Your task to perform on an android device: check data usage Image 0: 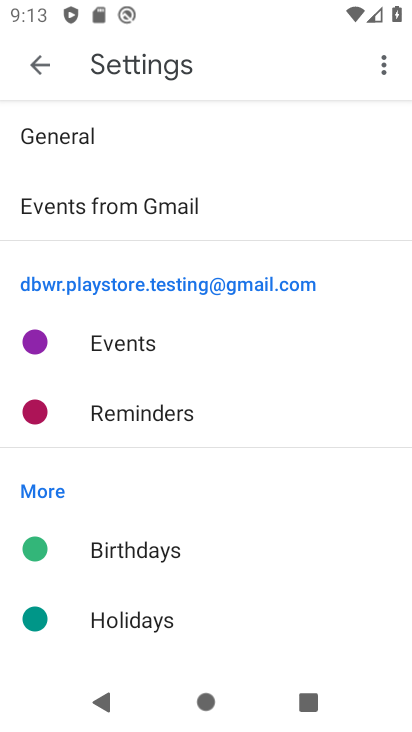
Step 0: press home button
Your task to perform on an android device: check data usage Image 1: 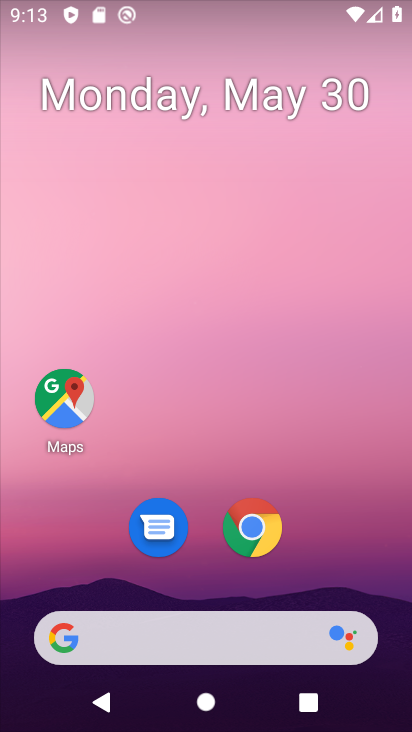
Step 1: drag from (81, 611) to (269, 76)
Your task to perform on an android device: check data usage Image 2: 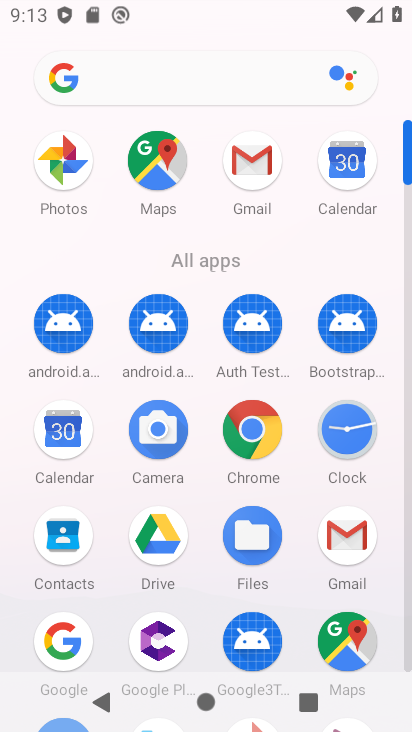
Step 2: drag from (172, 640) to (227, 410)
Your task to perform on an android device: check data usage Image 3: 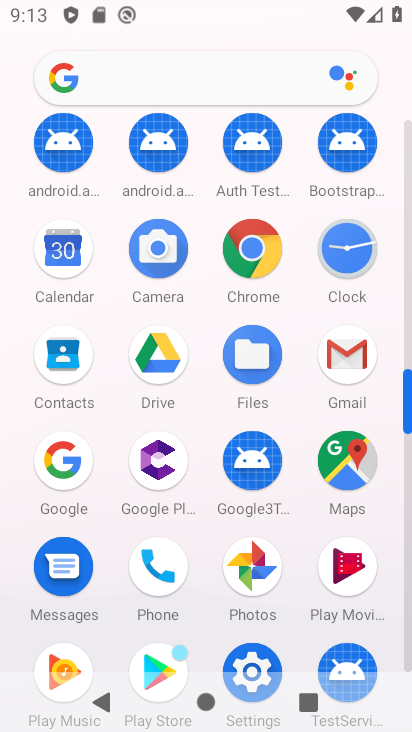
Step 3: drag from (248, 610) to (288, 432)
Your task to perform on an android device: check data usage Image 4: 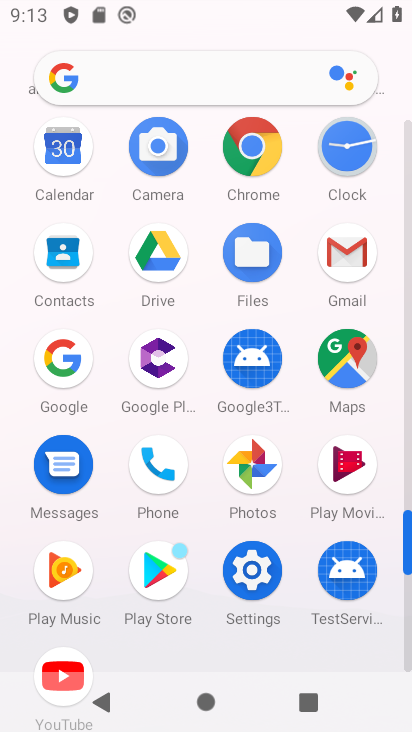
Step 4: click (257, 573)
Your task to perform on an android device: check data usage Image 5: 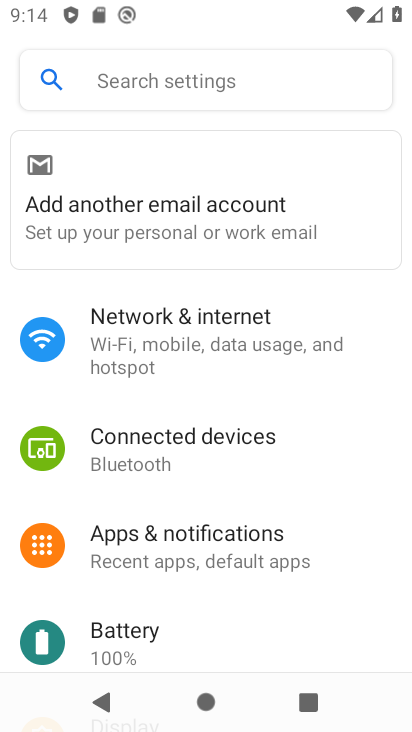
Step 5: click (286, 349)
Your task to perform on an android device: check data usage Image 6: 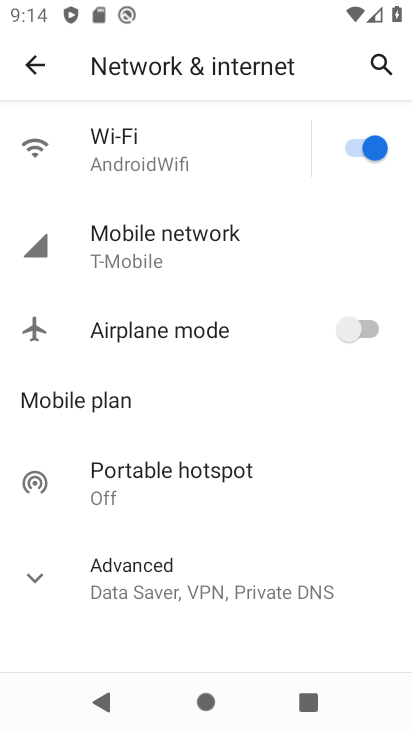
Step 6: click (249, 597)
Your task to perform on an android device: check data usage Image 7: 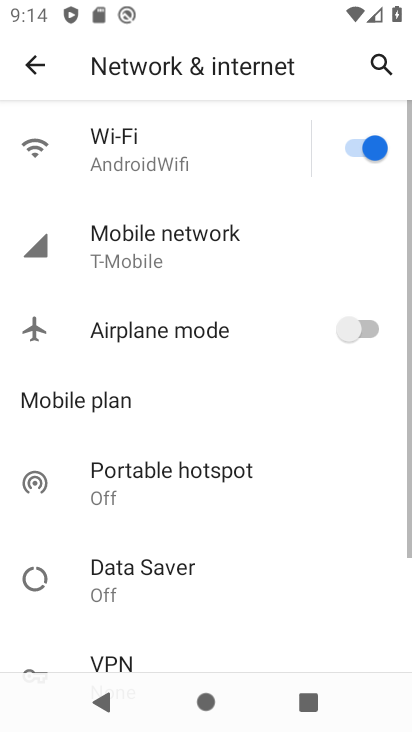
Step 7: drag from (251, 563) to (242, 645)
Your task to perform on an android device: check data usage Image 8: 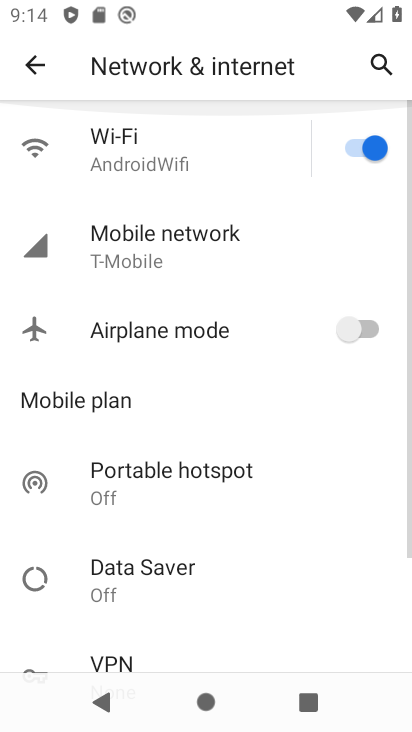
Step 8: click (220, 268)
Your task to perform on an android device: check data usage Image 9: 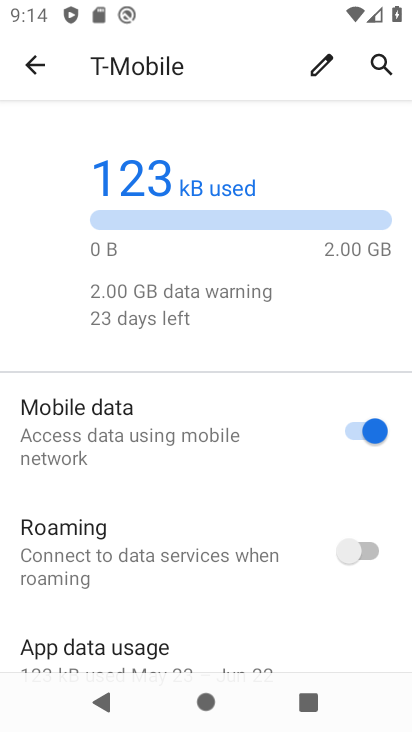
Step 9: click (191, 649)
Your task to perform on an android device: check data usage Image 10: 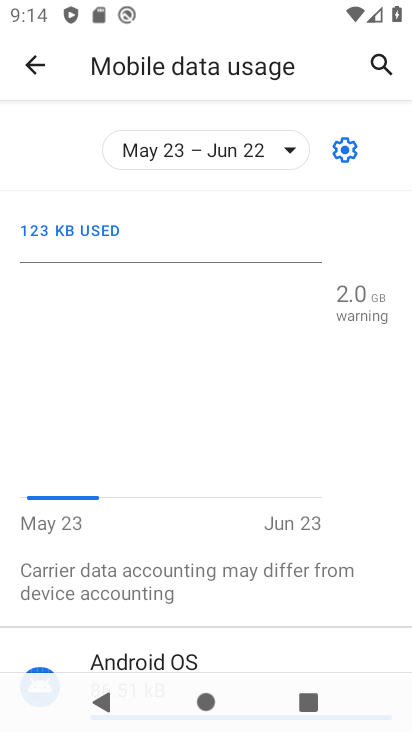
Step 10: task complete